Your task to perform on an android device: clear history in the chrome app Image 0: 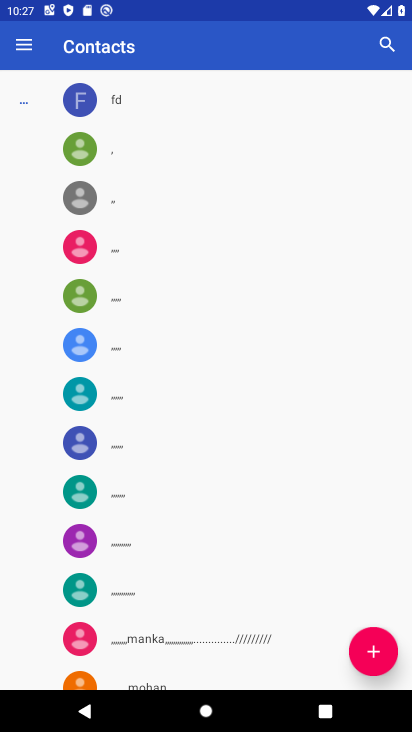
Step 0: press home button
Your task to perform on an android device: clear history in the chrome app Image 1: 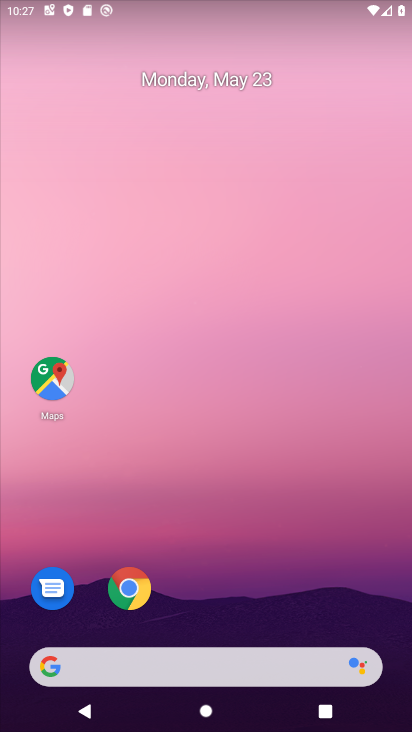
Step 1: click (122, 588)
Your task to perform on an android device: clear history in the chrome app Image 2: 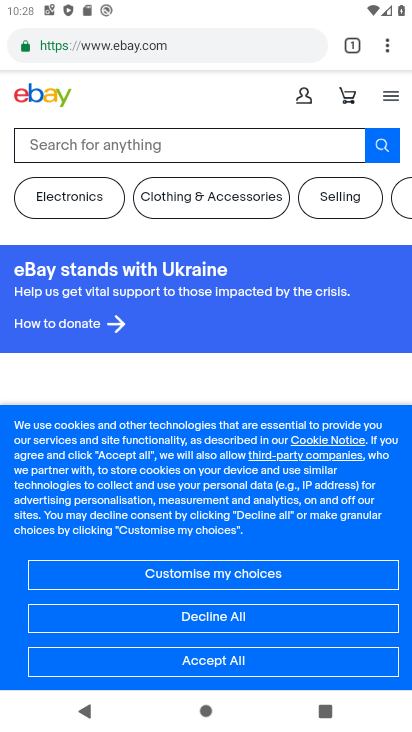
Step 2: drag from (394, 40) to (224, 255)
Your task to perform on an android device: clear history in the chrome app Image 3: 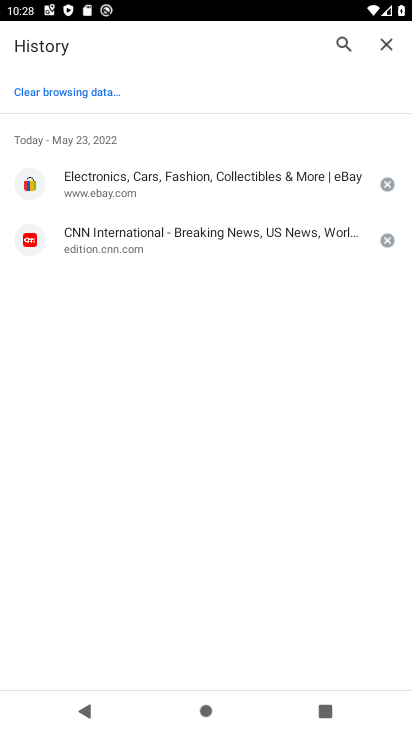
Step 3: click (93, 91)
Your task to perform on an android device: clear history in the chrome app Image 4: 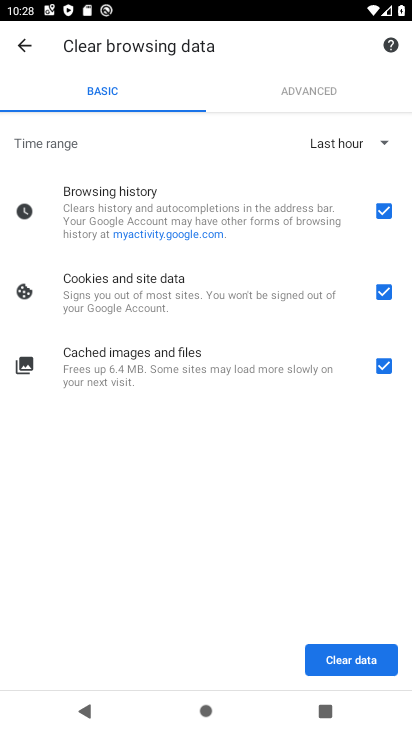
Step 4: click (368, 656)
Your task to perform on an android device: clear history in the chrome app Image 5: 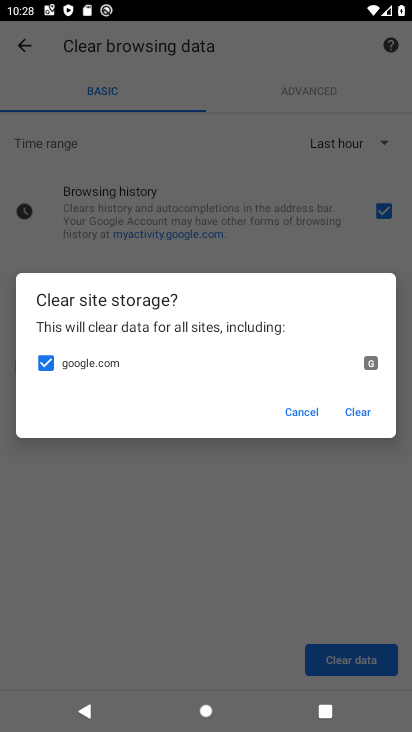
Step 5: click (358, 409)
Your task to perform on an android device: clear history in the chrome app Image 6: 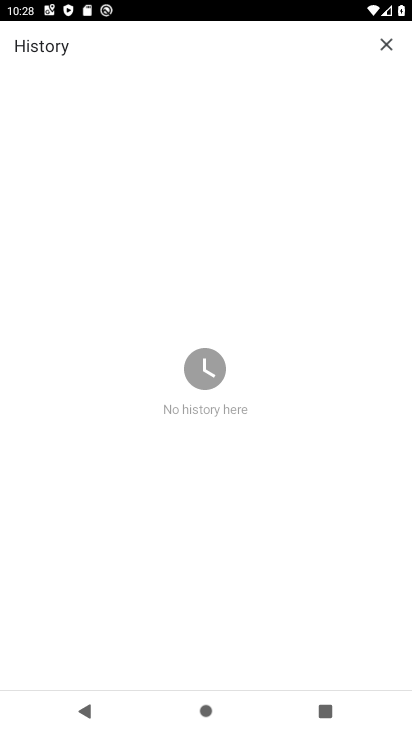
Step 6: task complete